Your task to perform on an android device: check the backup settings in the google photos Image 0: 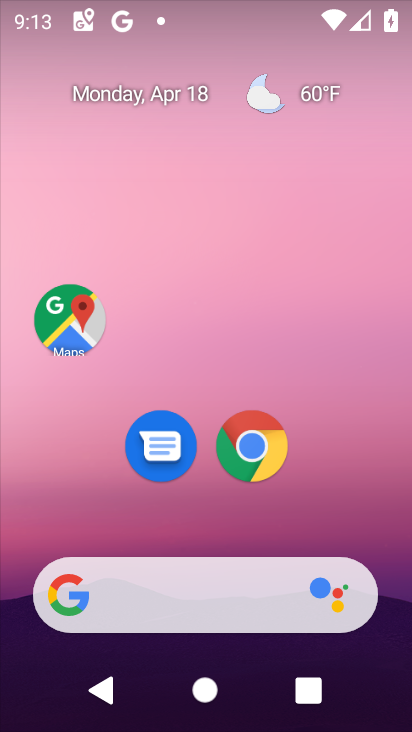
Step 0: drag from (381, 512) to (356, 120)
Your task to perform on an android device: check the backup settings in the google photos Image 1: 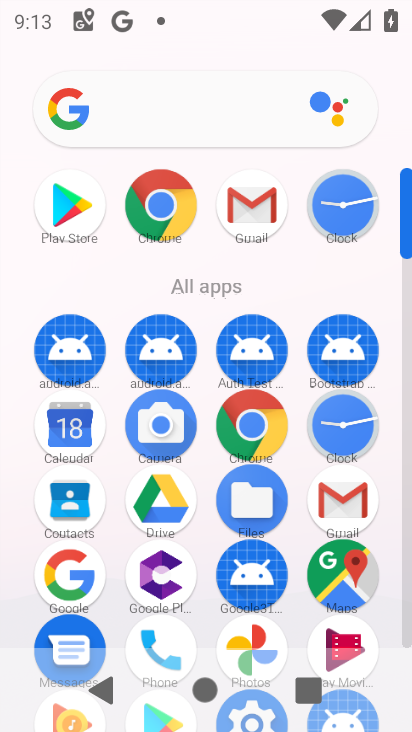
Step 1: drag from (395, 477) to (392, 307)
Your task to perform on an android device: check the backup settings in the google photos Image 2: 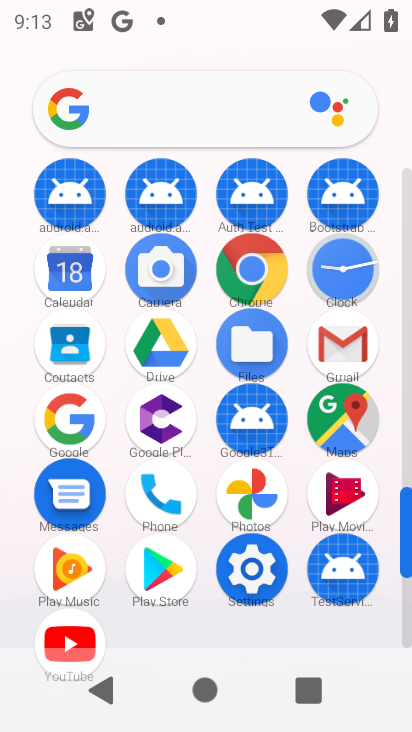
Step 2: click (249, 503)
Your task to perform on an android device: check the backup settings in the google photos Image 3: 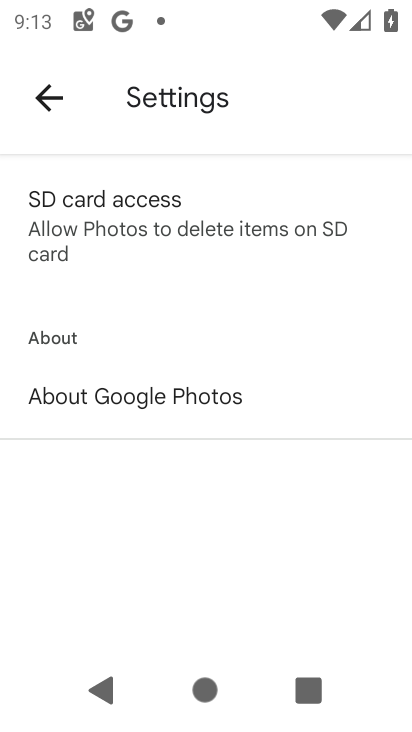
Step 3: press back button
Your task to perform on an android device: check the backup settings in the google photos Image 4: 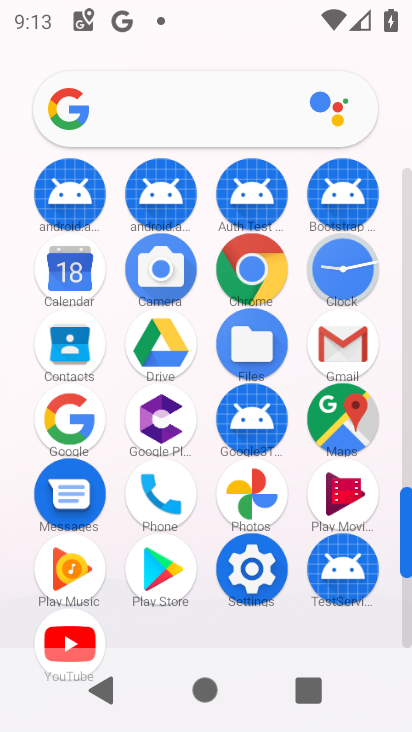
Step 4: click (252, 495)
Your task to perform on an android device: check the backup settings in the google photos Image 5: 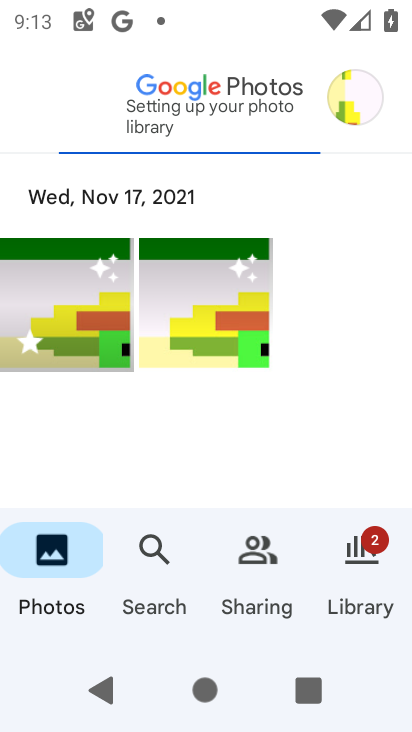
Step 5: click (361, 100)
Your task to perform on an android device: check the backup settings in the google photos Image 6: 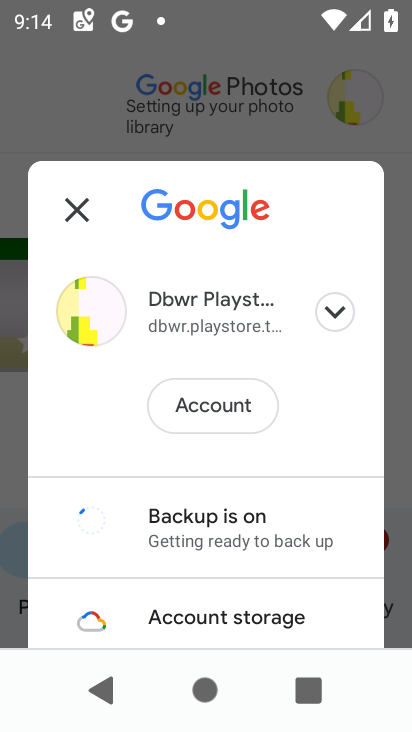
Step 6: drag from (341, 558) to (342, 208)
Your task to perform on an android device: check the backup settings in the google photos Image 7: 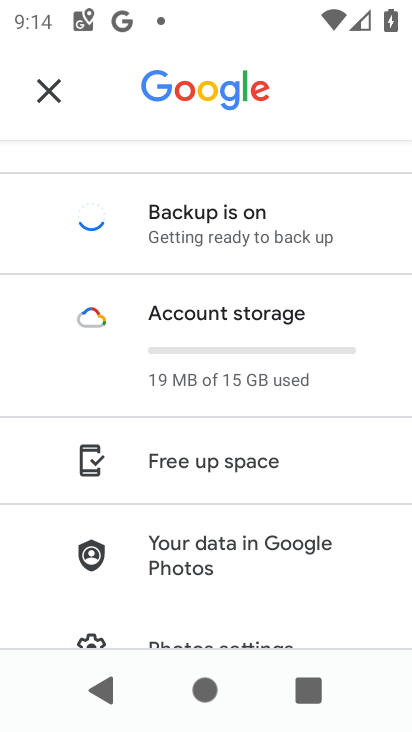
Step 7: drag from (356, 589) to (361, 300)
Your task to perform on an android device: check the backup settings in the google photos Image 8: 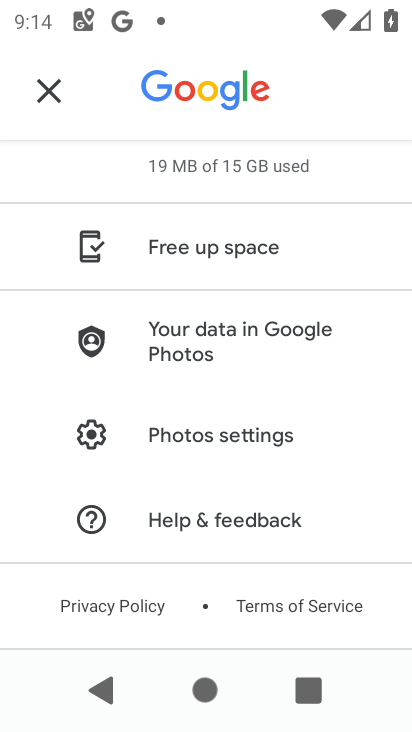
Step 8: click (267, 431)
Your task to perform on an android device: check the backup settings in the google photos Image 9: 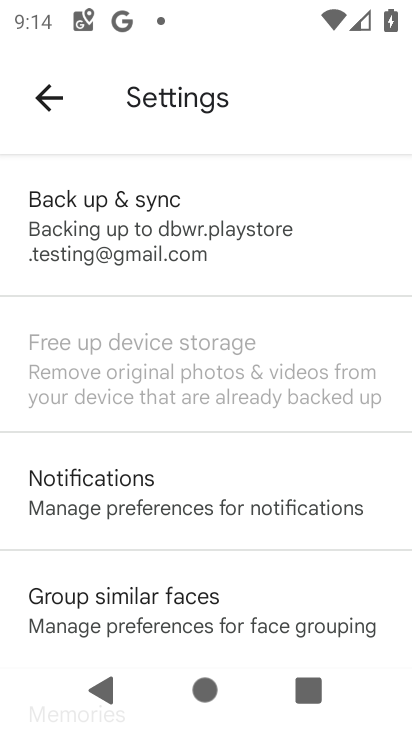
Step 9: click (192, 213)
Your task to perform on an android device: check the backup settings in the google photos Image 10: 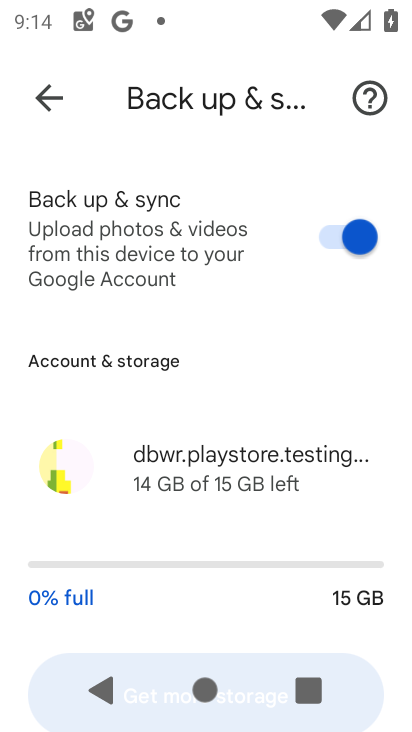
Step 10: task complete